Your task to perform on an android device: Show me popular videos on Youtube Image 0: 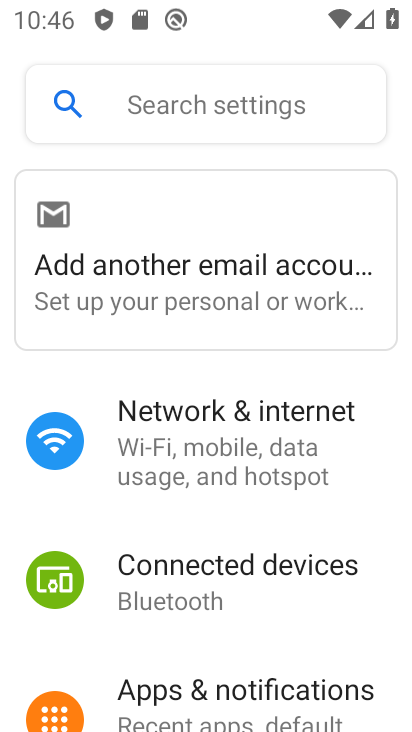
Step 0: press home button
Your task to perform on an android device: Show me popular videos on Youtube Image 1: 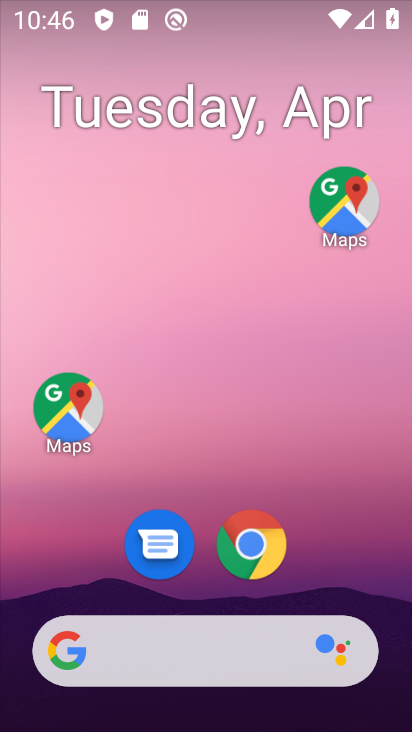
Step 1: drag from (349, 423) to (344, 230)
Your task to perform on an android device: Show me popular videos on Youtube Image 2: 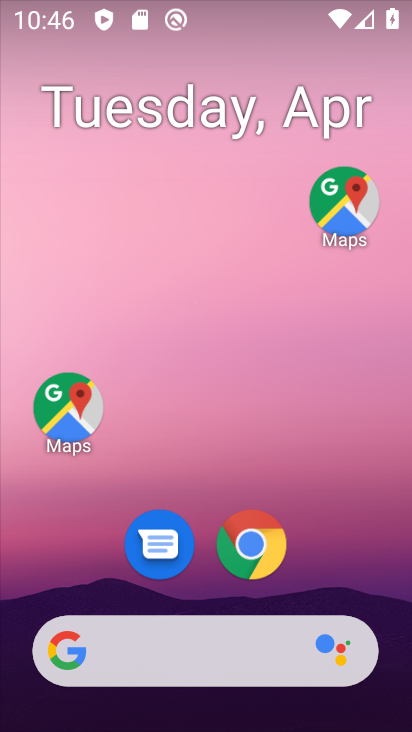
Step 2: drag from (275, 349) to (233, 160)
Your task to perform on an android device: Show me popular videos on Youtube Image 3: 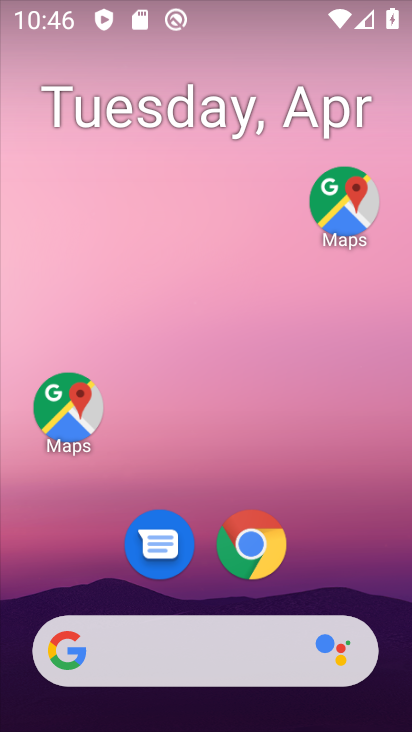
Step 3: drag from (197, 365) to (202, 45)
Your task to perform on an android device: Show me popular videos on Youtube Image 4: 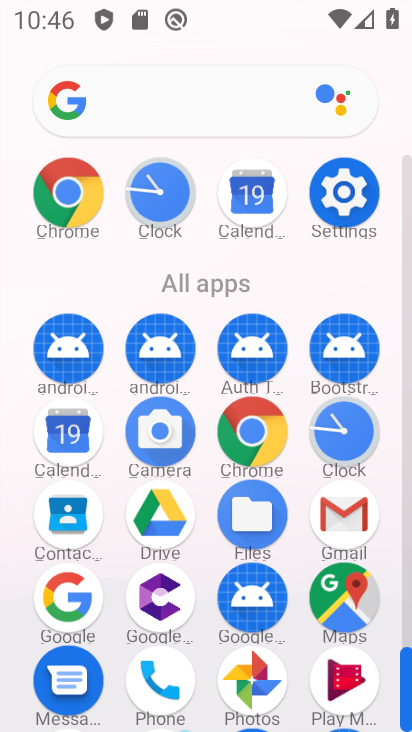
Step 4: drag from (207, 601) to (225, 222)
Your task to perform on an android device: Show me popular videos on Youtube Image 5: 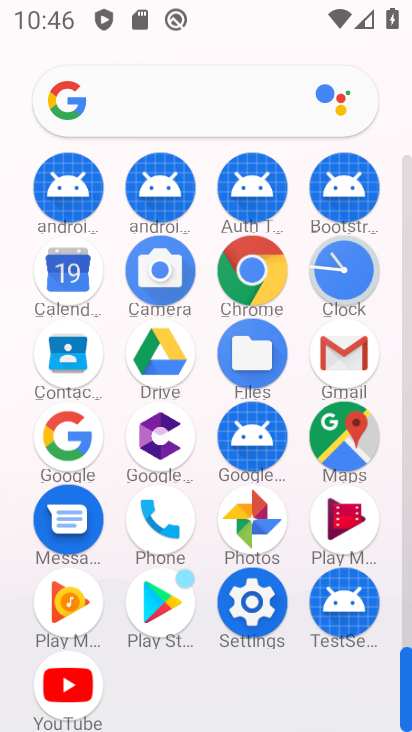
Step 5: click (86, 697)
Your task to perform on an android device: Show me popular videos on Youtube Image 6: 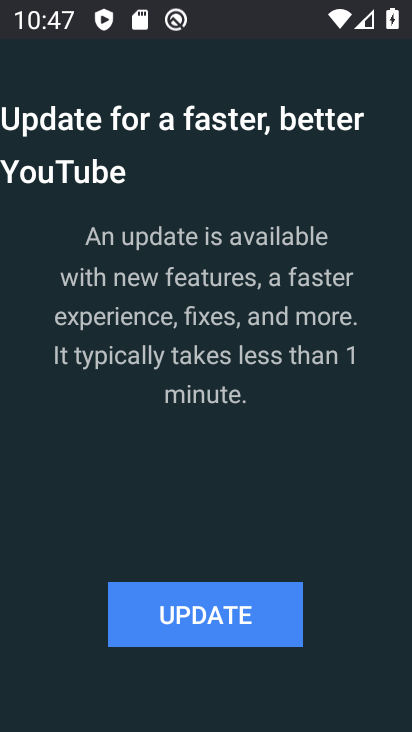
Step 6: click (234, 635)
Your task to perform on an android device: Show me popular videos on Youtube Image 7: 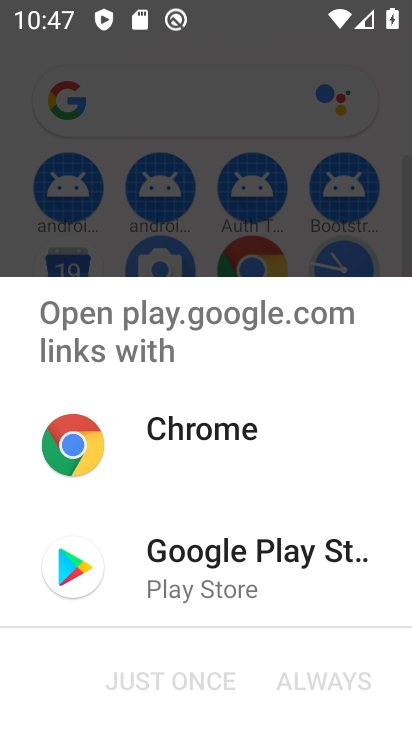
Step 7: click (86, 569)
Your task to perform on an android device: Show me popular videos on Youtube Image 8: 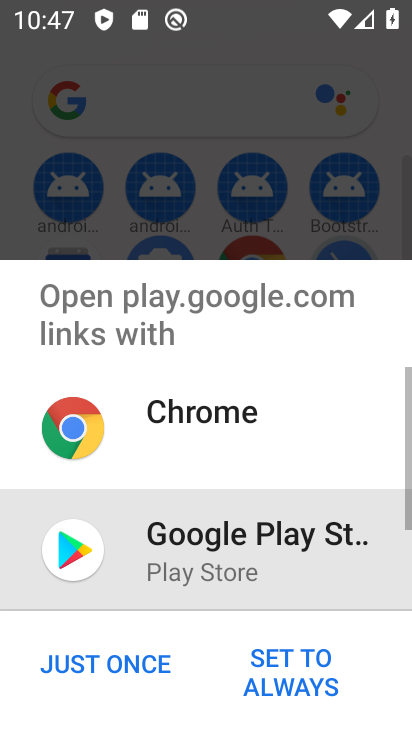
Step 8: click (115, 665)
Your task to perform on an android device: Show me popular videos on Youtube Image 9: 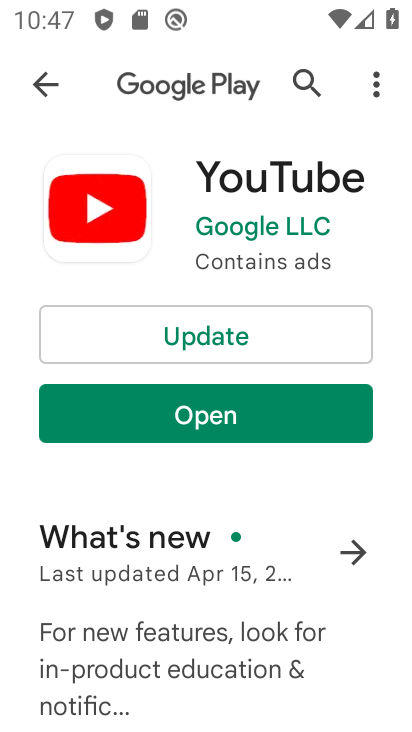
Step 9: click (245, 335)
Your task to perform on an android device: Show me popular videos on Youtube Image 10: 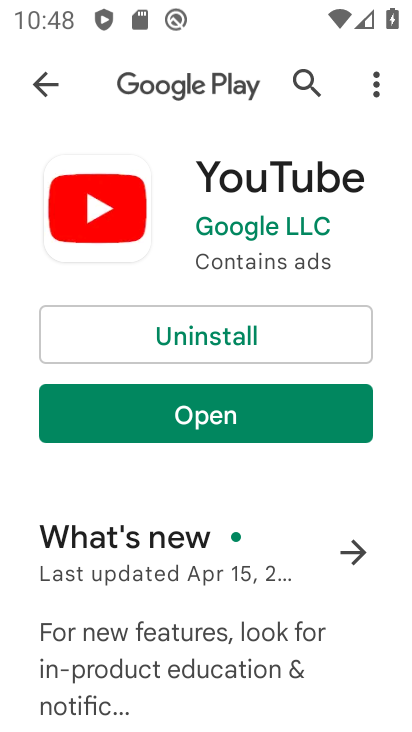
Step 10: click (277, 409)
Your task to perform on an android device: Show me popular videos on Youtube Image 11: 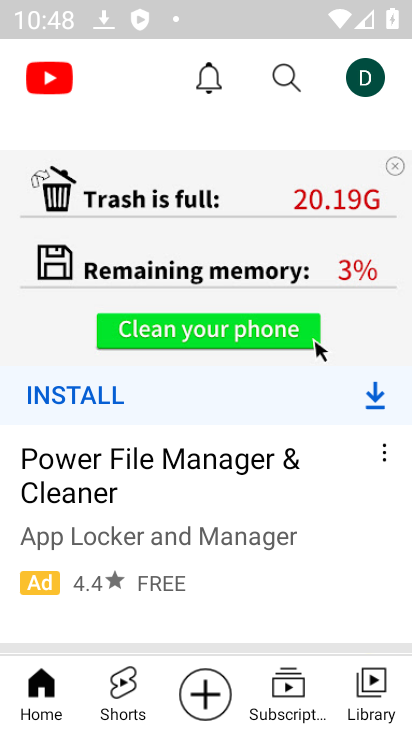
Step 11: click (367, 699)
Your task to perform on an android device: Show me popular videos on Youtube Image 12: 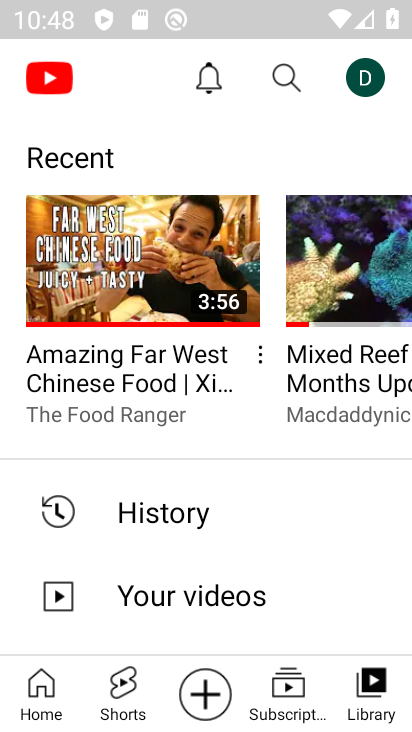
Step 12: drag from (310, 581) to (283, 238)
Your task to perform on an android device: Show me popular videos on Youtube Image 13: 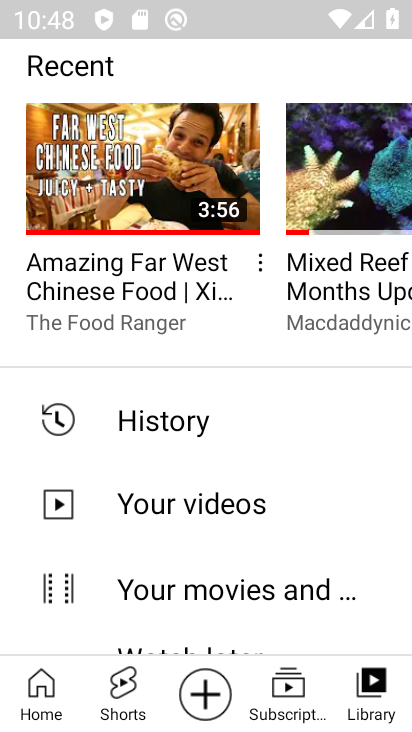
Step 13: click (29, 691)
Your task to perform on an android device: Show me popular videos on Youtube Image 14: 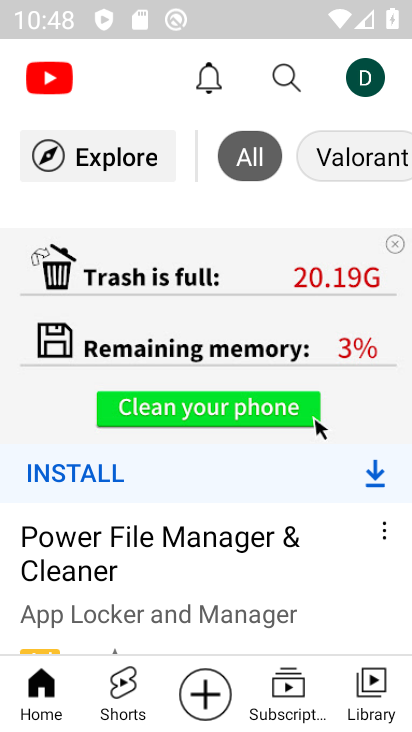
Step 14: task complete